Your task to perform on an android device: turn on wifi Image 0: 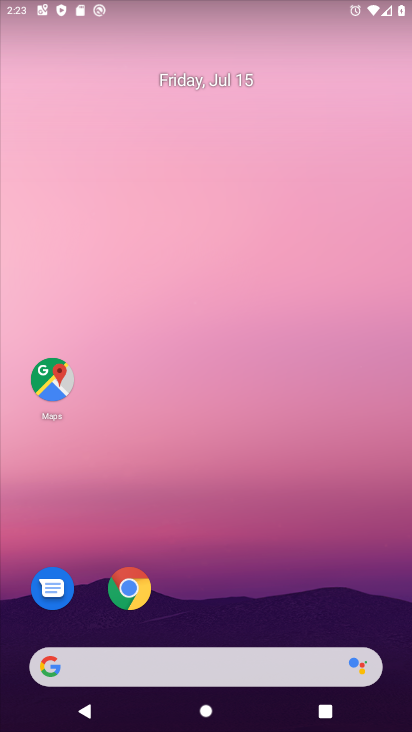
Step 0: press home button
Your task to perform on an android device: turn on wifi Image 1: 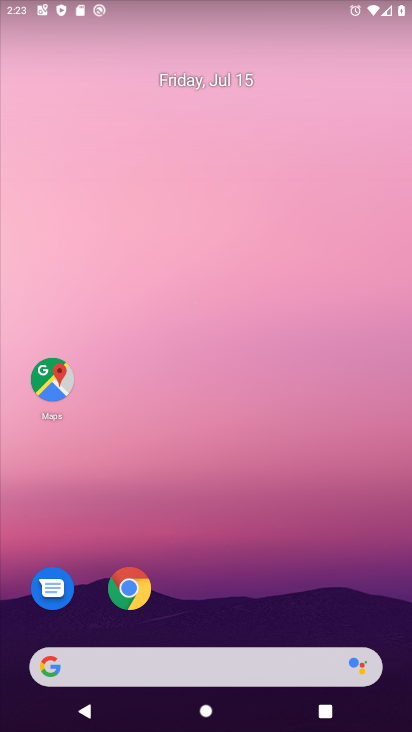
Step 1: drag from (205, 662) to (235, 102)
Your task to perform on an android device: turn on wifi Image 2: 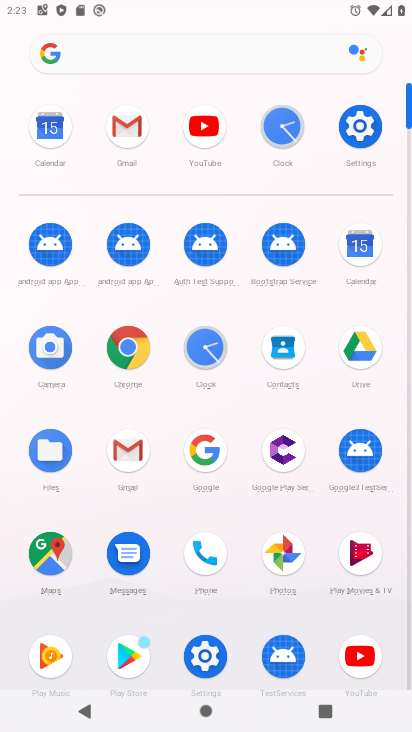
Step 2: click (358, 127)
Your task to perform on an android device: turn on wifi Image 3: 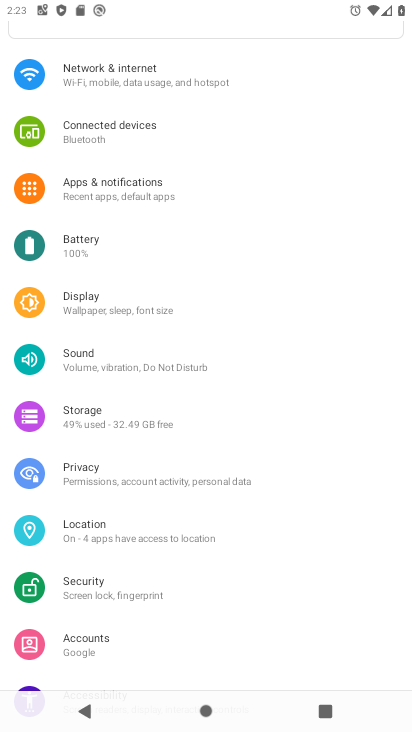
Step 3: click (159, 78)
Your task to perform on an android device: turn on wifi Image 4: 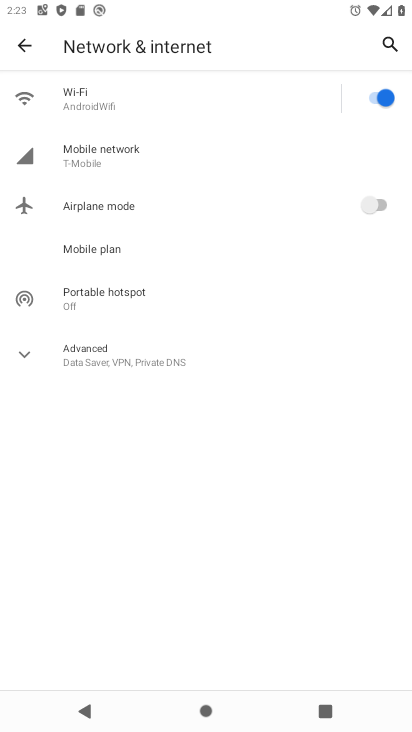
Step 4: task complete